Your task to perform on an android device: Open display settings Image 0: 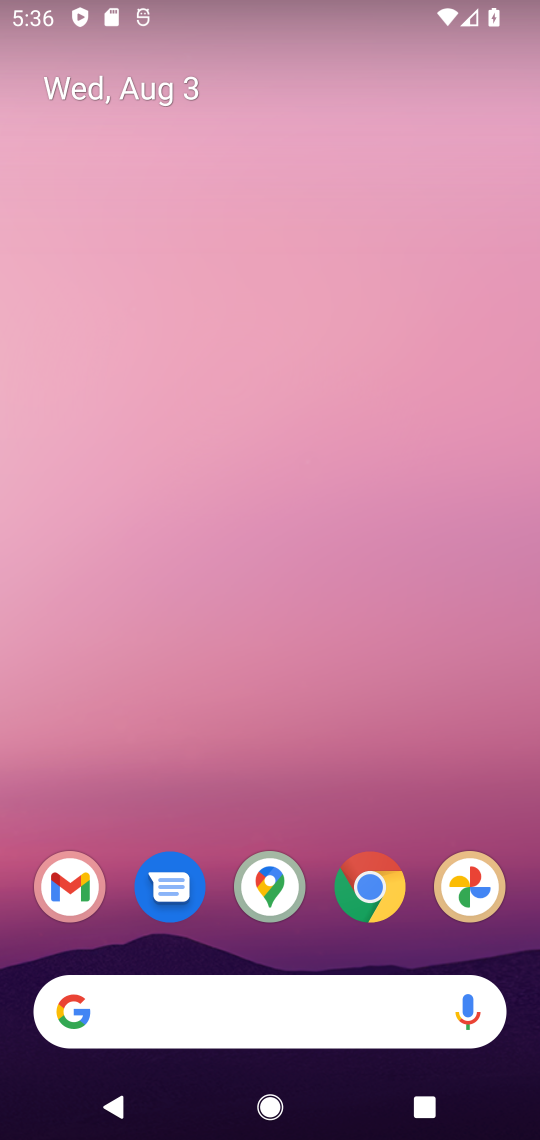
Step 0: drag from (292, 971) to (294, 34)
Your task to perform on an android device: Open display settings Image 1: 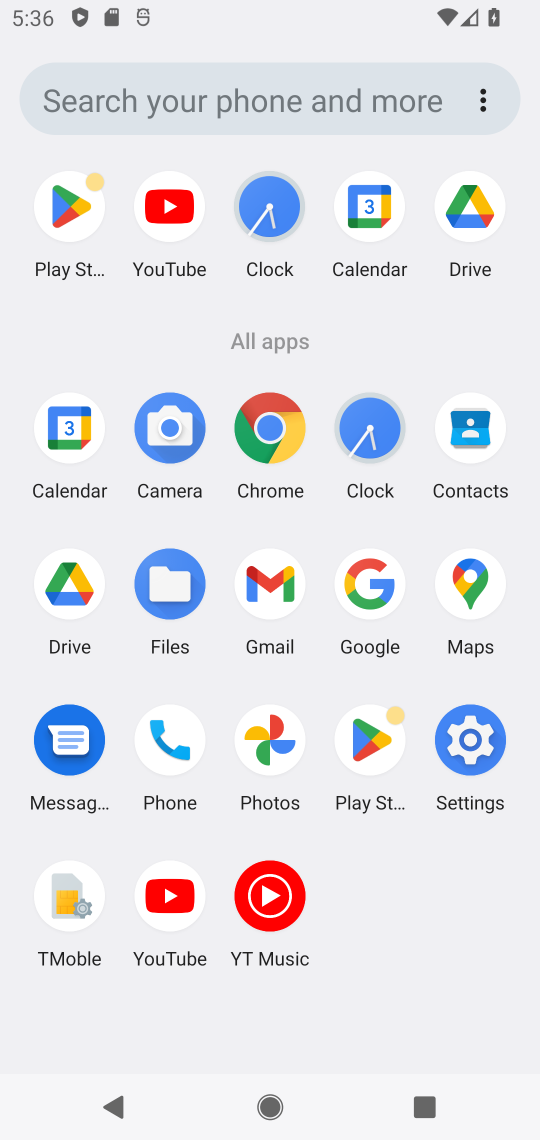
Step 1: click (485, 780)
Your task to perform on an android device: Open display settings Image 2: 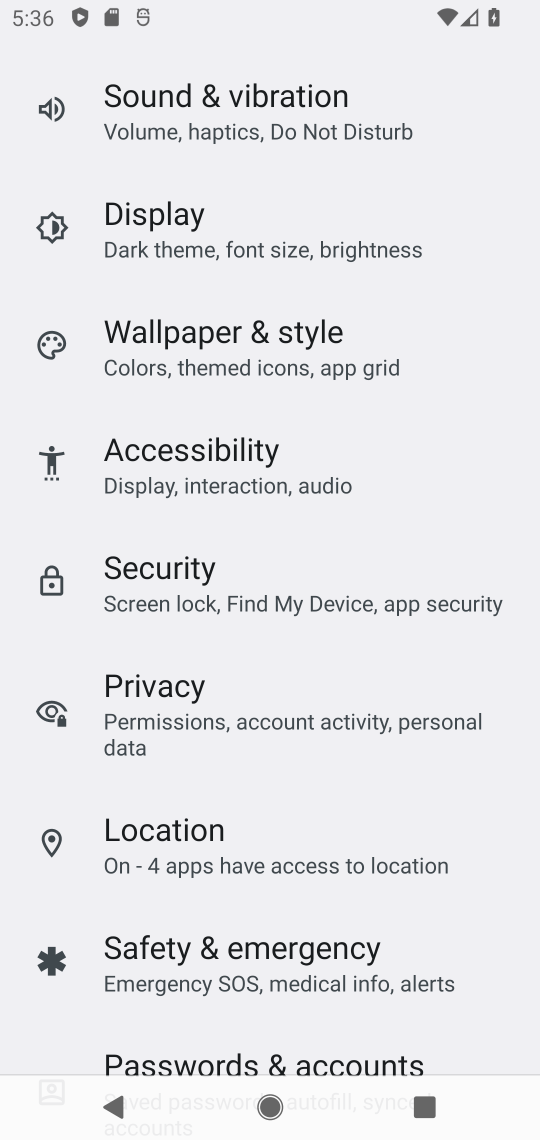
Step 2: click (144, 220)
Your task to perform on an android device: Open display settings Image 3: 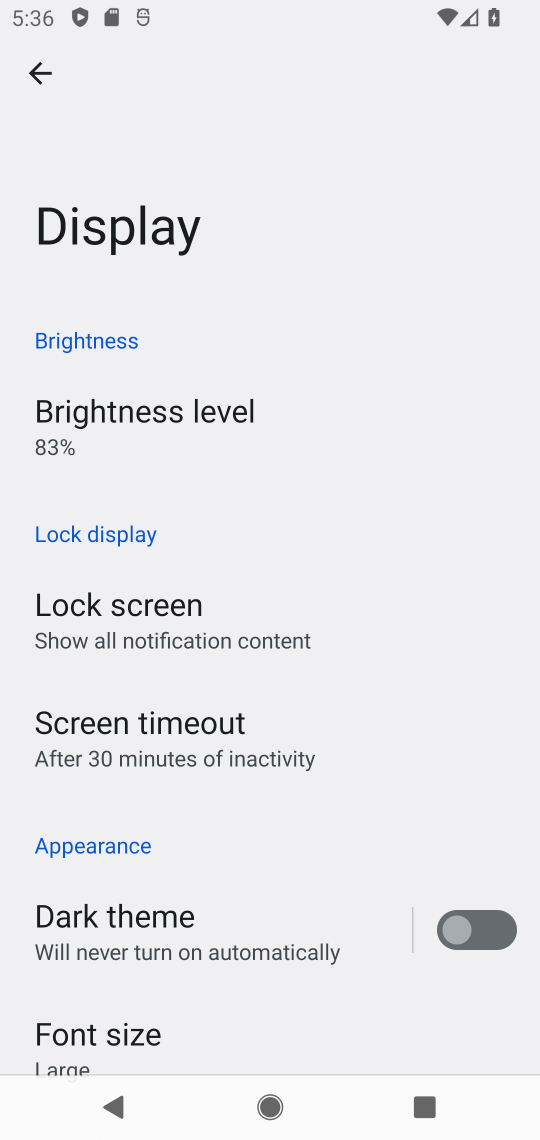
Step 3: task complete